Your task to perform on an android device: Is it going to rain today? Image 0: 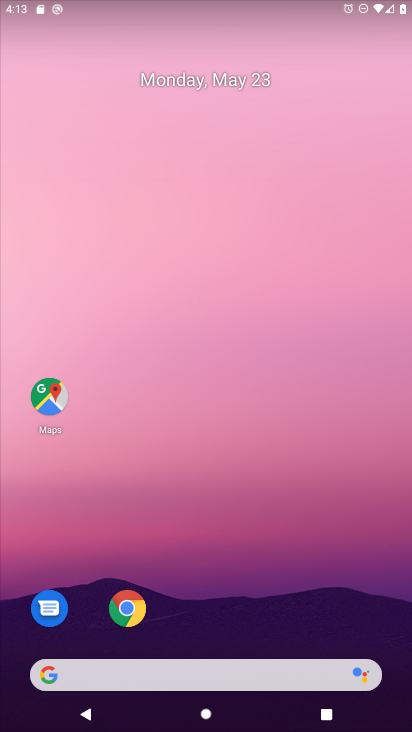
Step 0: drag from (284, 607) to (125, 133)
Your task to perform on an android device: Is it going to rain today? Image 1: 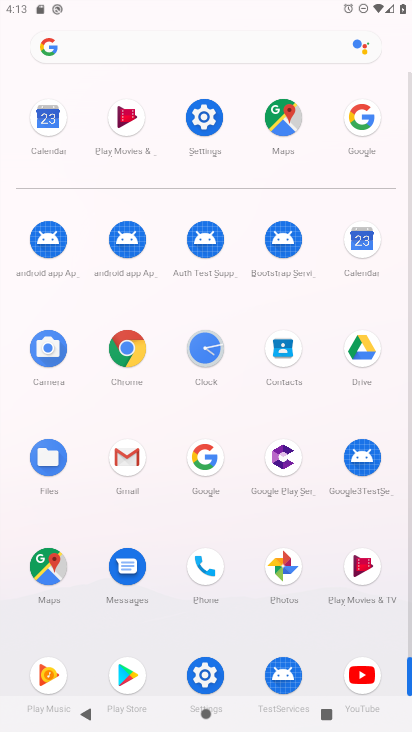
Step 1: click (358, 115)
Your task to perform on an android device: Is it going to rain today? Image 2: 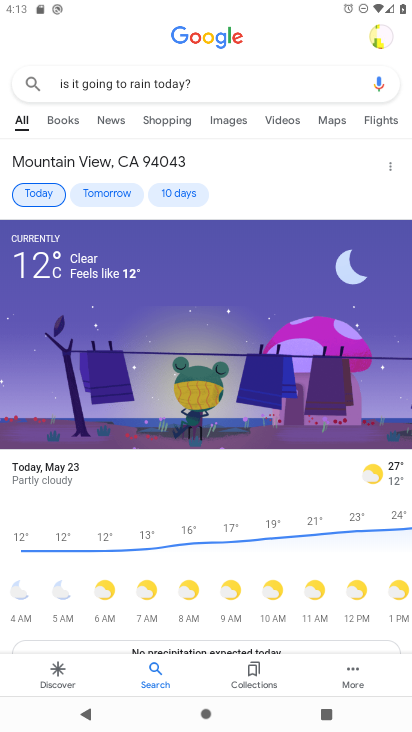
Step 2: drag from (197, 486) to (237, 322)
Your task to perform on an android device: Is it going to rain today? Image 3: 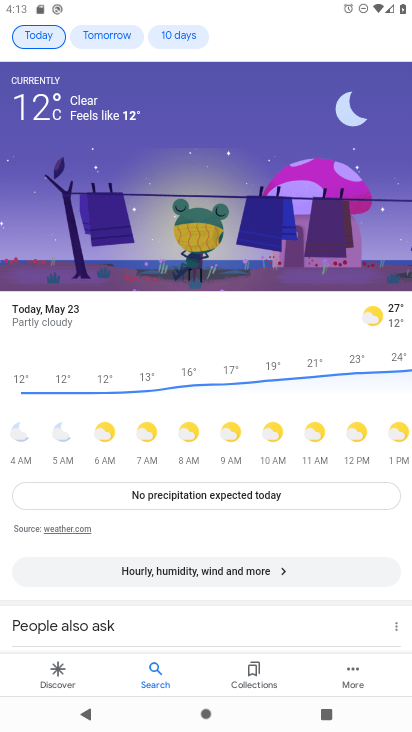
Step 3: drag from (214, 311) to (136, 575)
Your task to perform on an android device: Is it going to rain today? Image 4: 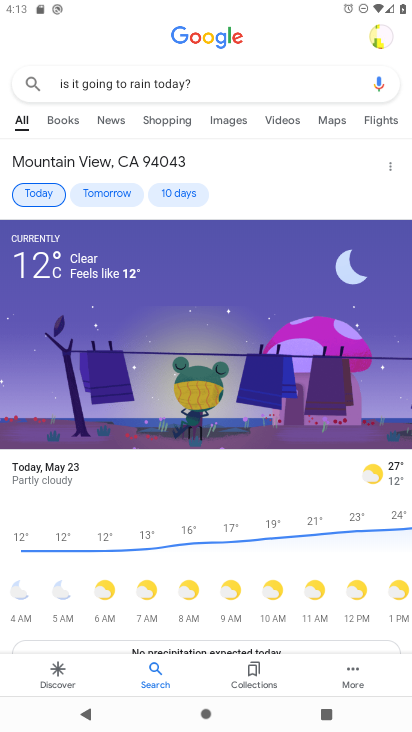
Step 4: click (208, 88)
Your task to perform on an android device: Is it going to rain today? Image 5: 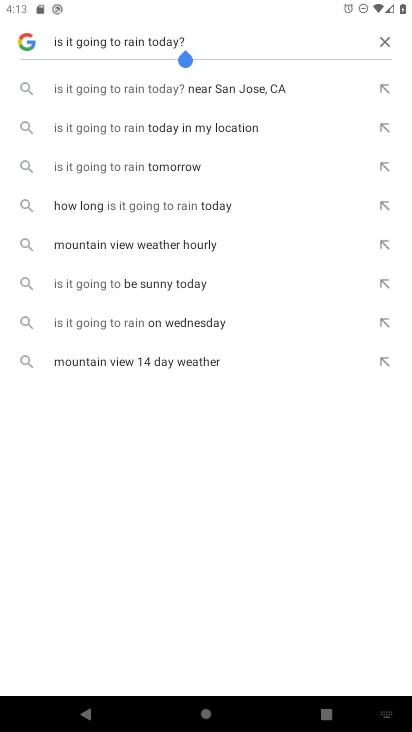
Step 5: click (190, 80)
Your task to perform on an android device: Is it going to rain today? Image 6: 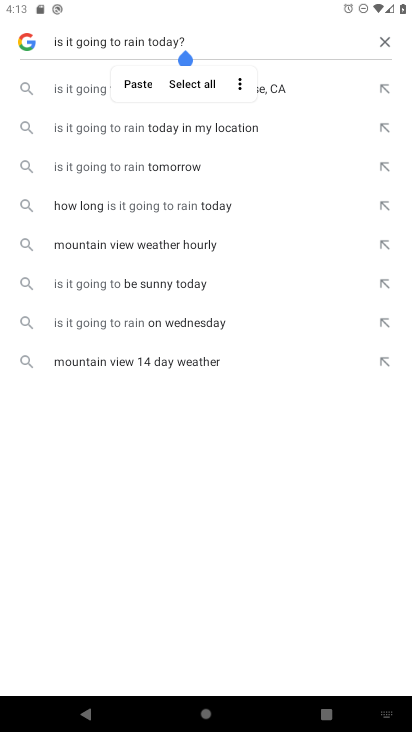
Step 6: click (80, 81)
Your task to perform on an android device: Is it going to rain today? Image 7: 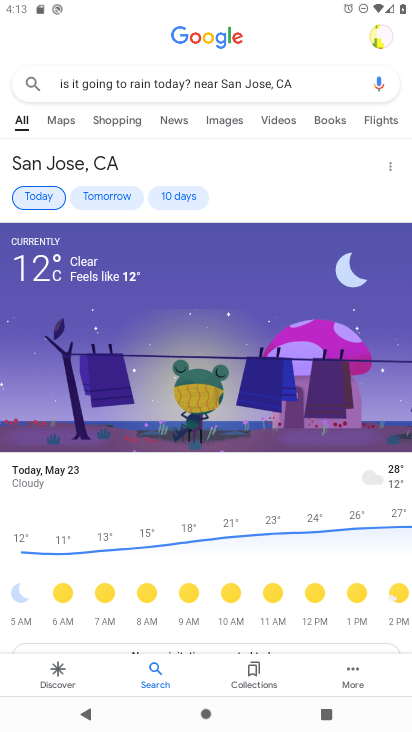
Step 7: task complete